Your task to perform on an android device: change the clock display to digital Image 0: 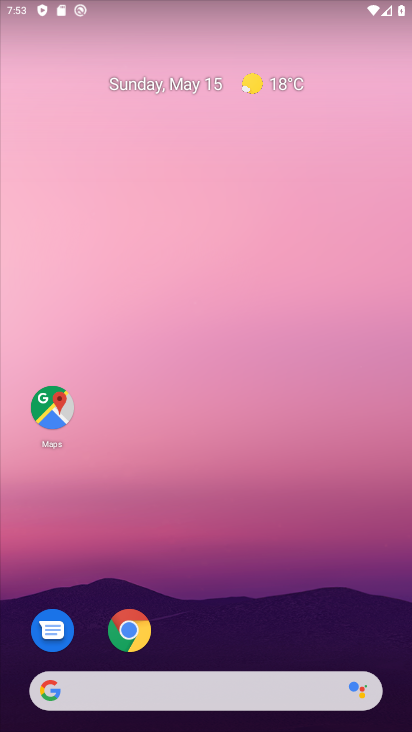
Step 0: click (405, 653)
Your task to perform on an android device: change the clock display to digital Image 1: 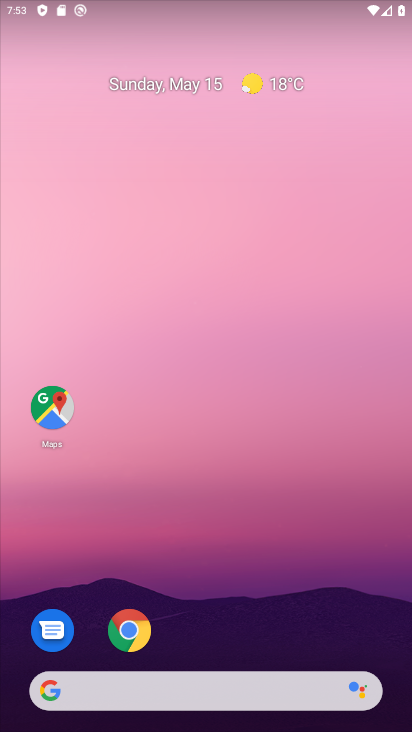
Step 1: drag from (198, 643) to (230, 178)
Your task to perform on an android device: change the clock display to digital Image 2: 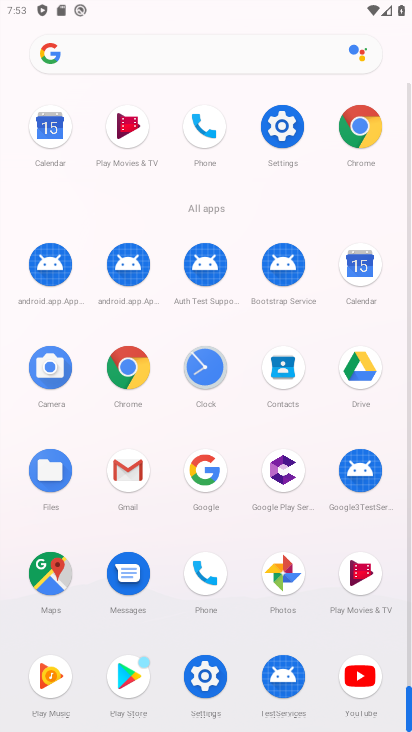
Step 2: click (200, 359)
Your task to perform on an android device: change the clock display to digital Image 3: 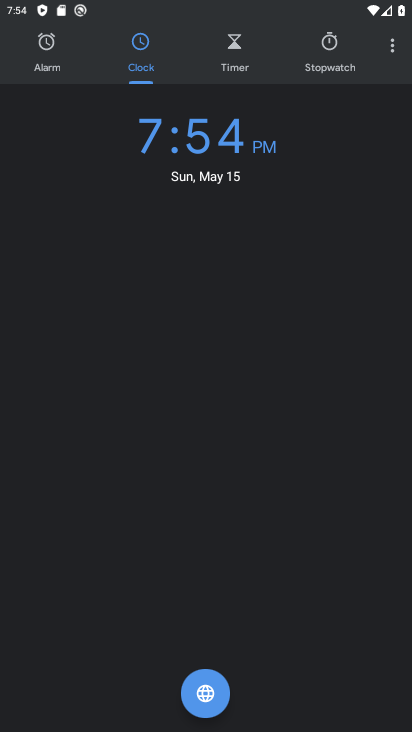
Step 3: click (386, 40)
Your task to perform on an android device: change the clock display to digital Image 4: 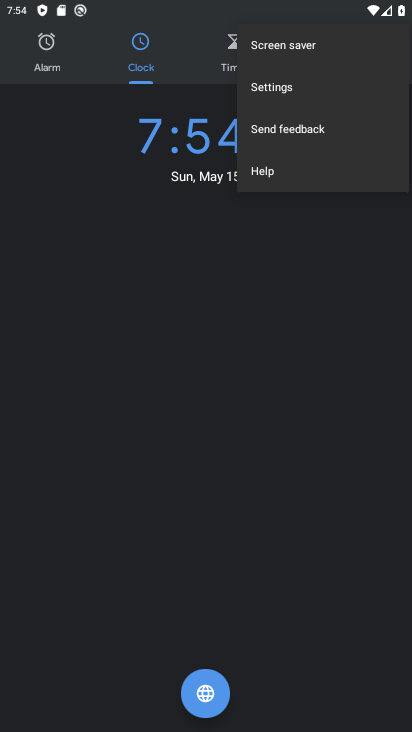
Step 4: click (281, 83)
Your task to perform on an android device: change the clock display to digital Image 5: 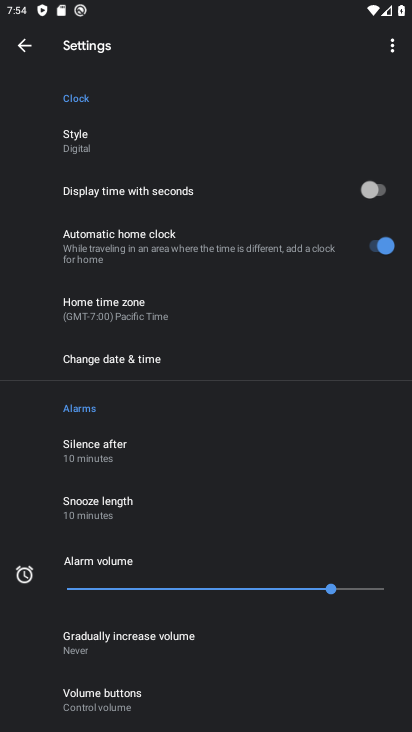
Step 5: click (185, 145)
Your task to perform on an android device: change the clock display to digital Image 6: 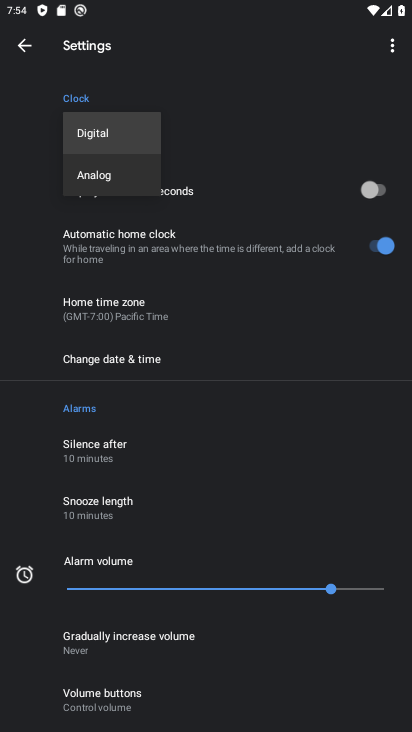
Step 6: click (88, 131)
Your task to perform on an android device: change the clock display to digital Image 7: 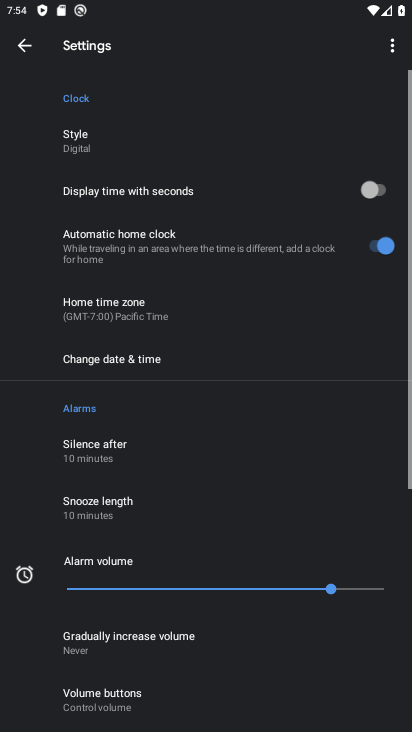
Step 7: task complete